Your task to perform on an android device: change the clock display to analog Image 0: 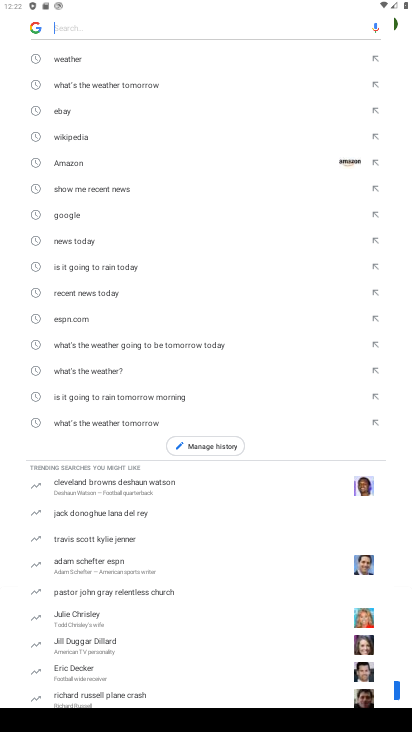
Step 0: press back button
Your task to perform on an android device: change the clock display to analog Image 1: 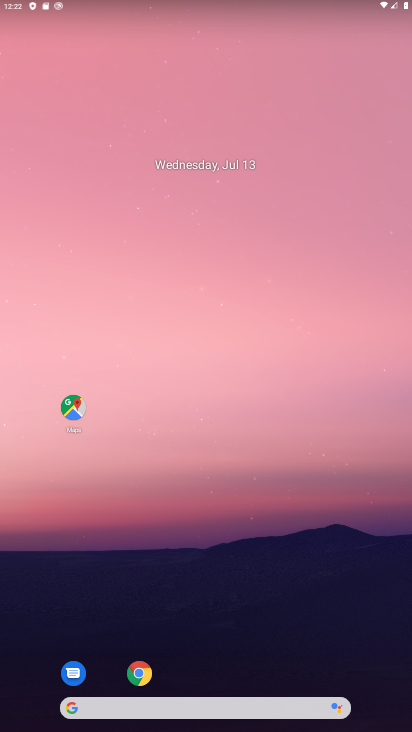
Step 1: drag from (245, 642) to (334, 112)
Your task to perform on an android device: change the clock display to analog Image 2: 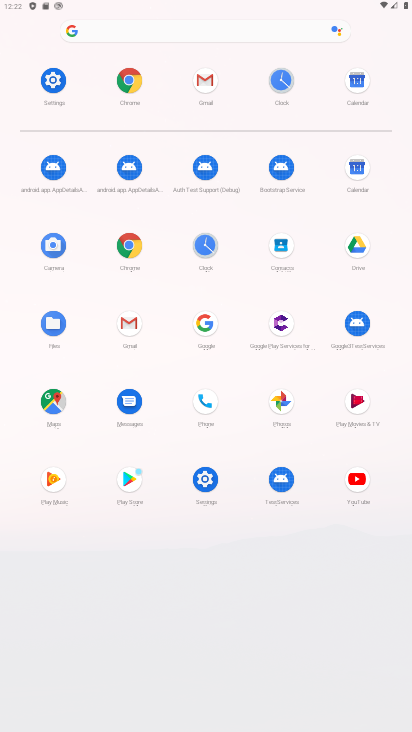
Step 2: click (289, 90)
Your task to perform on an android device: change the clock display to analog Image 3: 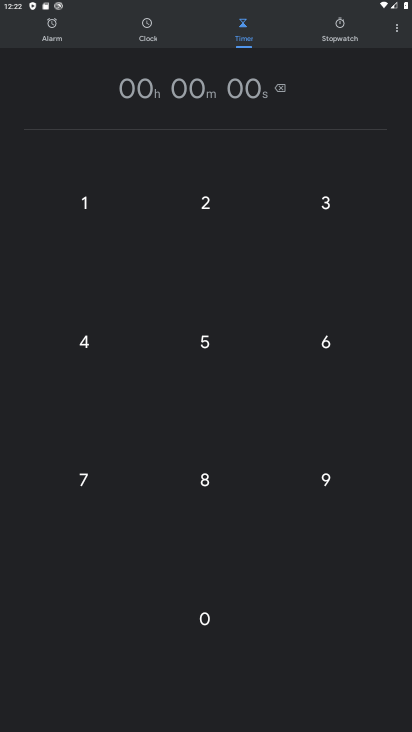
Step 3: click (388, 27)
Your task to perform on an android device: change the clock display to analog Image 4: 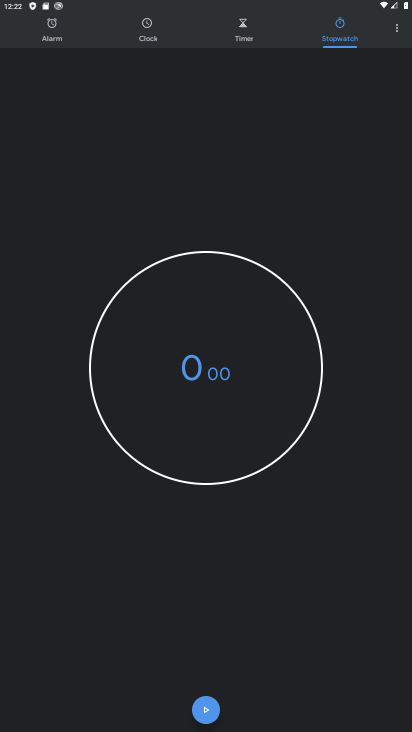
Step 4: click (398, 33)
Your task to perform on an android device: change the clock display to analog Image 5: 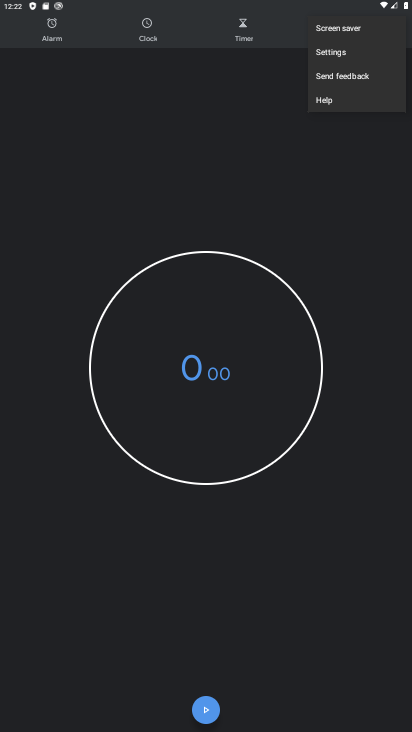
Step 5: click (369, 49)
Your task to perform on an android device: change the clock display to analog Image 6: 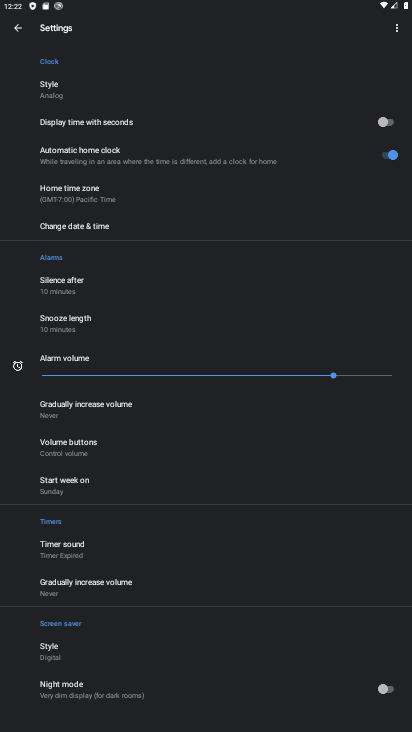
Step 6: click (103, 89)
Your task to perform on an android device: change the clock display to analog Image 7: 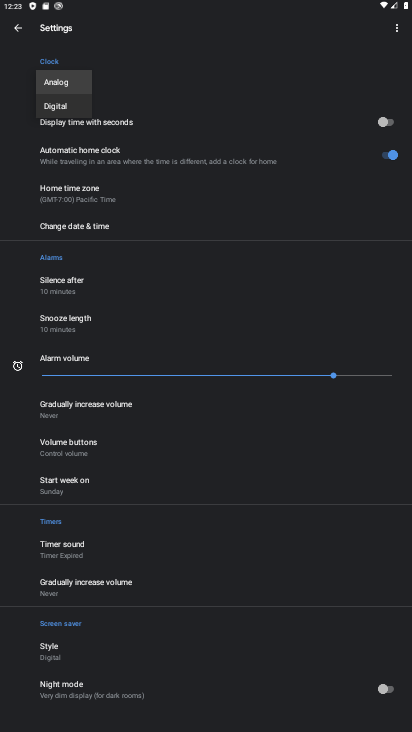
Step 7: click (108, 79)
Your task to perform on an android device: change the clock display to analog Image 8: 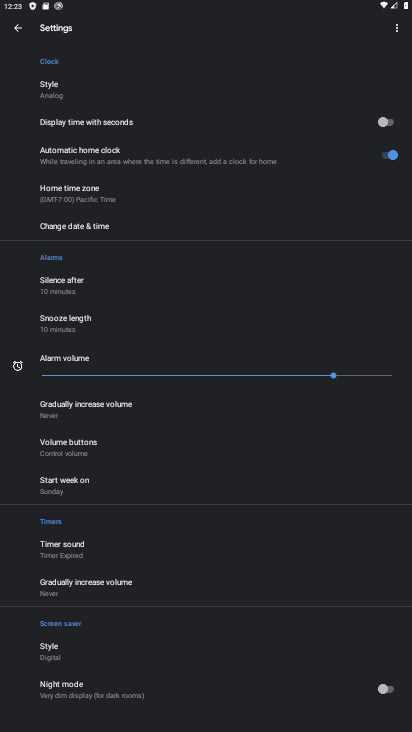
Step 8: click (81, 88)
Your task to perform on an android device: change the clock display to analog Image 9: 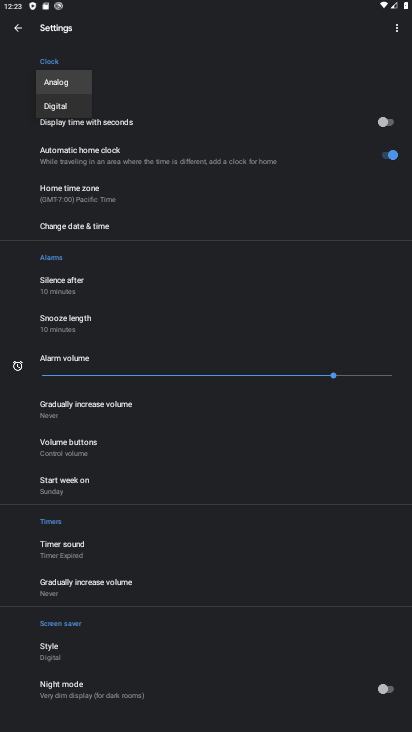
Step 9: click (76, 114)
Your task to perform on an android device: change the clock display to analog Image 10: 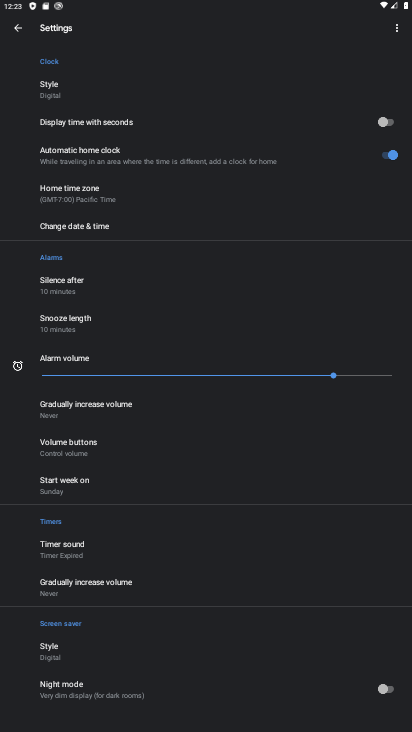
Step 10: click (85, 107)
Your task to perform on an android device: change the clock display to analog Image 11: 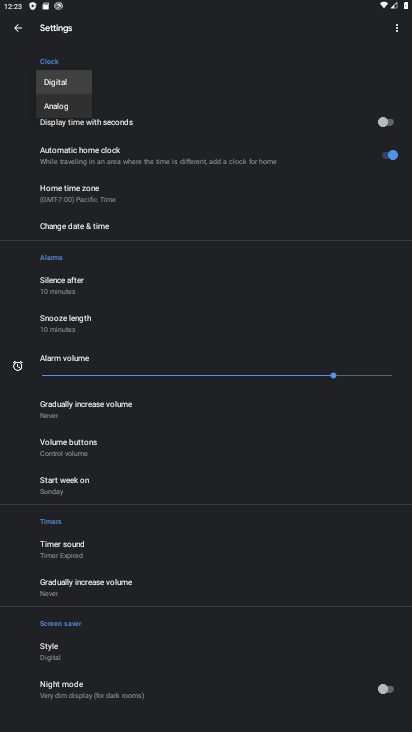
Step 11: task complete